Your task to perform on an android device: Open Chrome and go to settings Image 0: 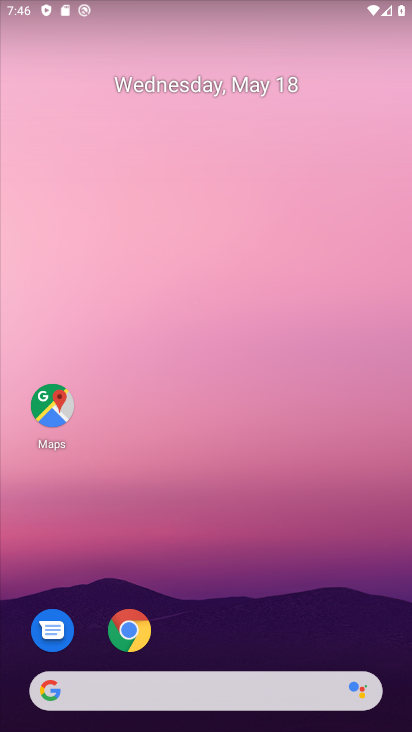
Step 0: click (125, 631)
Your task to perform on an android device: Open Chrome and go to settings Image 1: 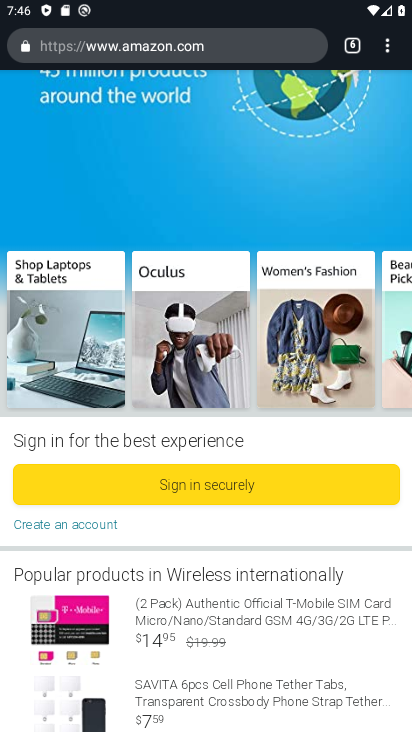
Step 1: click (388, 46)
Your task to perform on an android device: Open Chrome and go to settings Image 2: 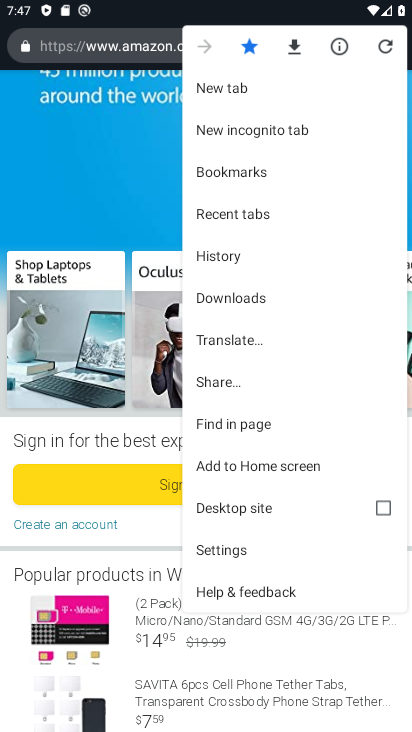
Step 2: click (236, 547)
Your task to perform on an android device: Open Chrome and go to settings Image 3: 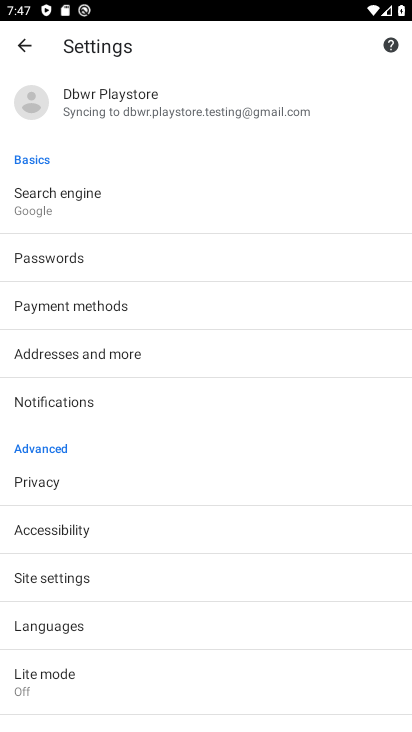
Step 3: task complete